Your task to perform on an android device: turn off picture-in-picture Image 0: 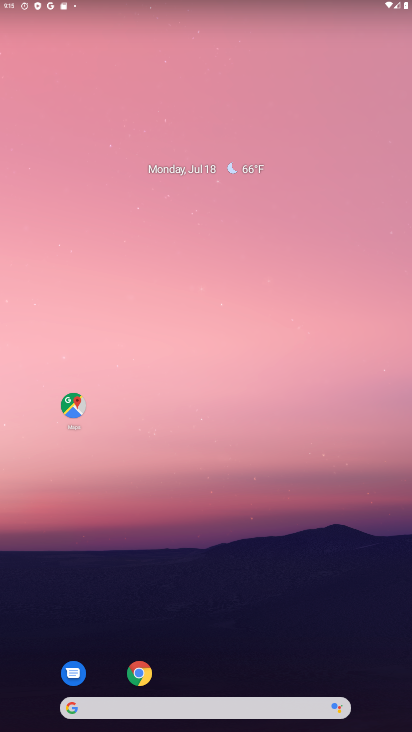
Step 0: click (144, 677)
Your task to perform on an android device: turn off picture-in-picture Image 1: 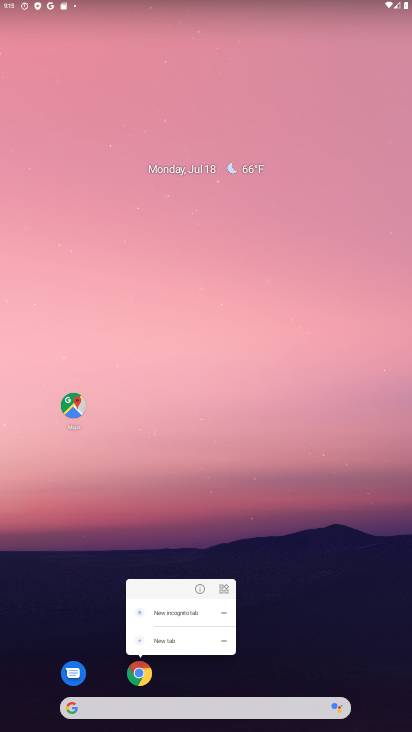
Step 1: click (199, 593)
Your task to perform on an android device: turn off picture-in-picture Image 2: 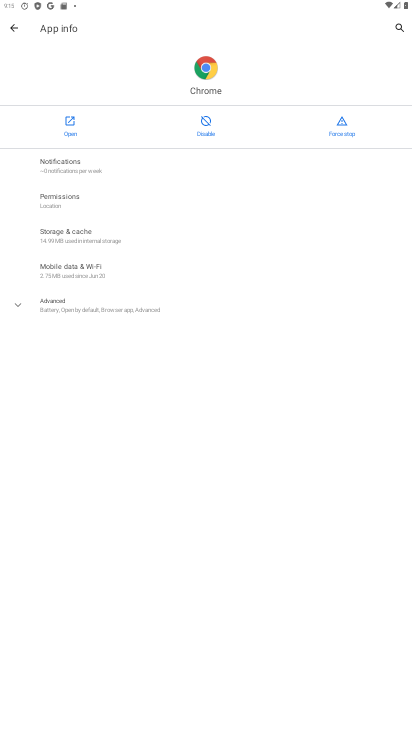
Step 2: click (78, 309)
Your task to perform on an android device: turn off picture-in-picture Image 3: 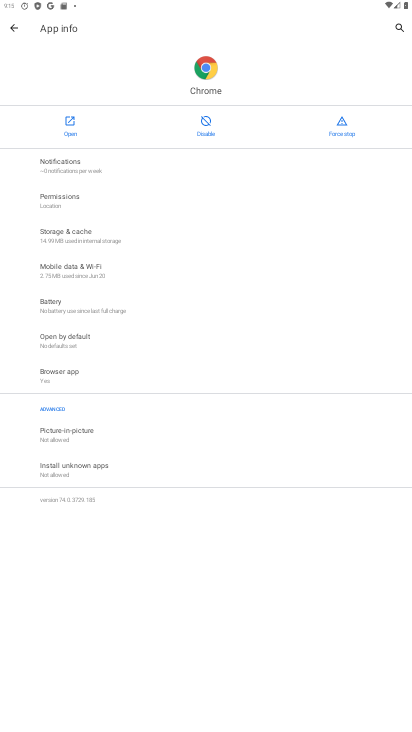
Step 3: click (82, 436)
Your task to perform on an android device: turn off picture-in-picture Image 4: 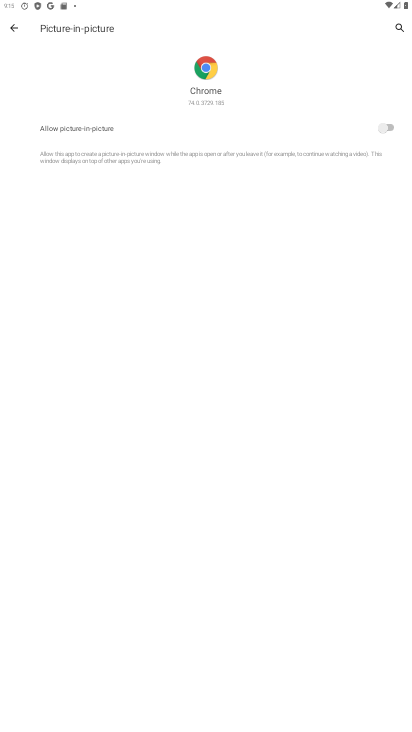
Step 4: task complete